Your task to perform on an android device: Search for razer naga on amazon.com, select the first entry, add it to the cart, then select checkout. Image 0: 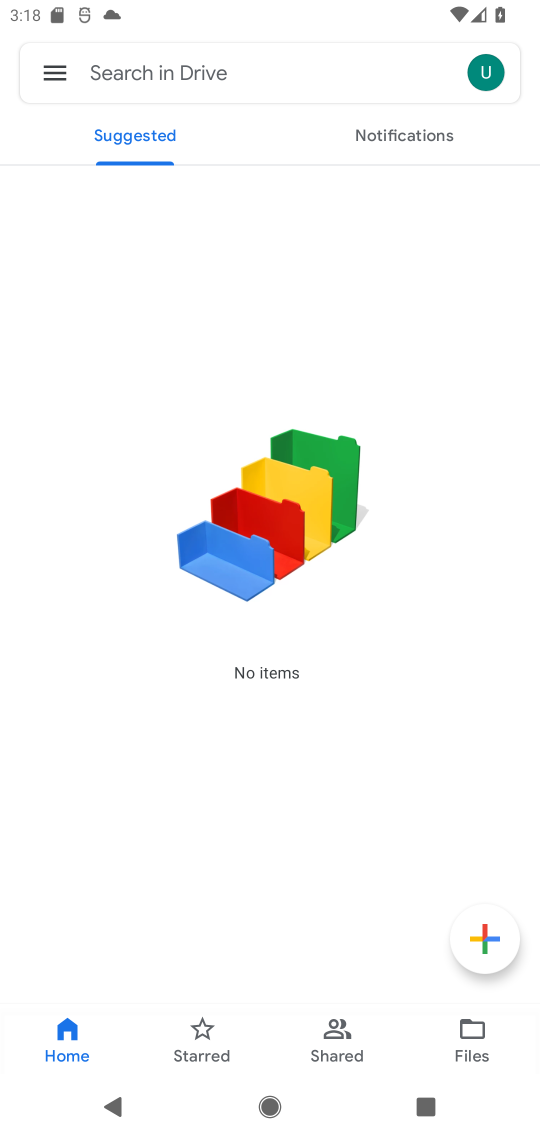
Step 0: press home button
Your task to perform on an android device: Search for razer naga on amazon.com, select the first entry, add it to the cart, then select checkout. Image 1: 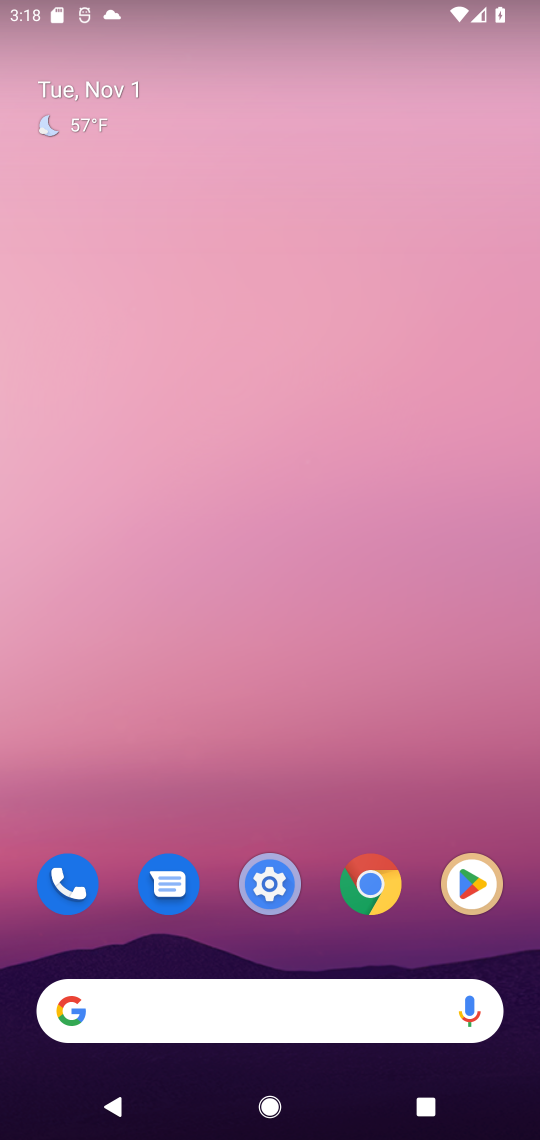
Step 1: click (105, 1011)
Your task to perform on an android device: Search for razer naga on amazon.com, select the first entry, add it to the cart, then select checkout. Image 2: 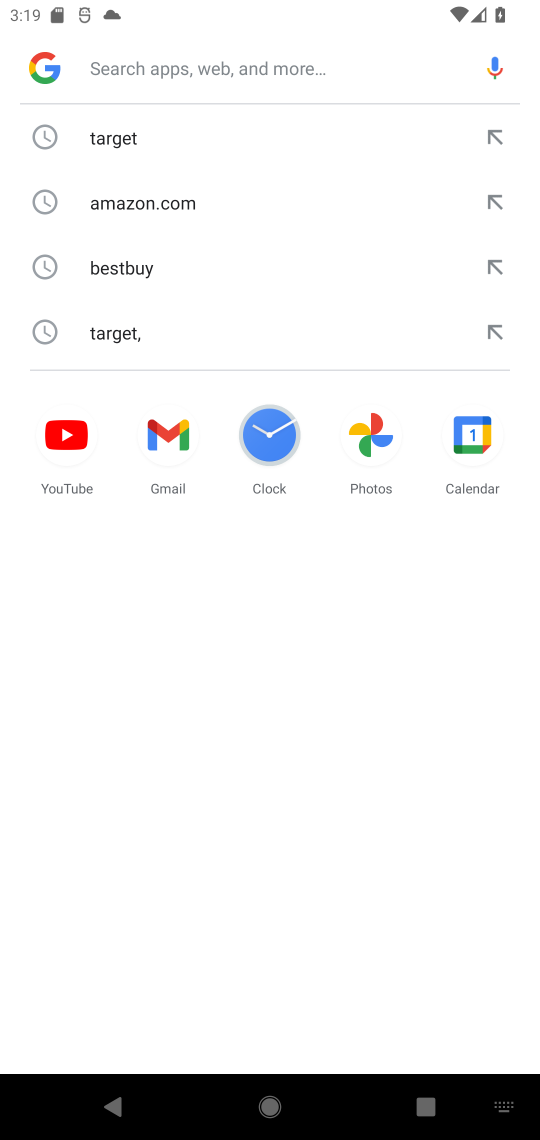
Step 2: type " amazon.com"
Your task to perform on an android device: Search for razer naga on amazon.com, select the first entry, add it to the cart, then select checkout. Image 3: 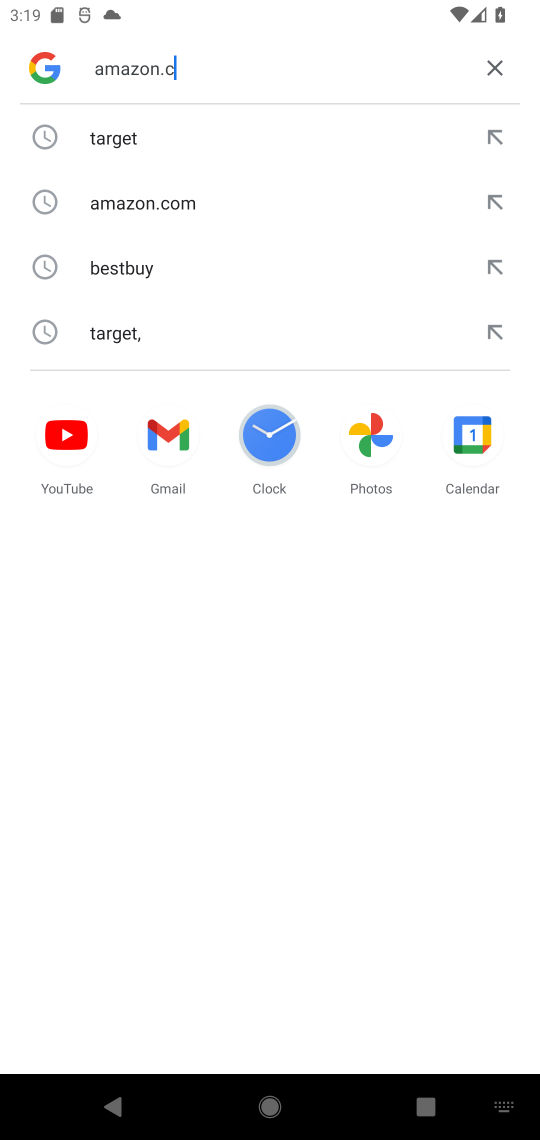
Step 3: press enter
Your task to perform on an android device: Search for razer naga on amazon.com, select the first entry, add it to the cart, then select checkout. Image 4: 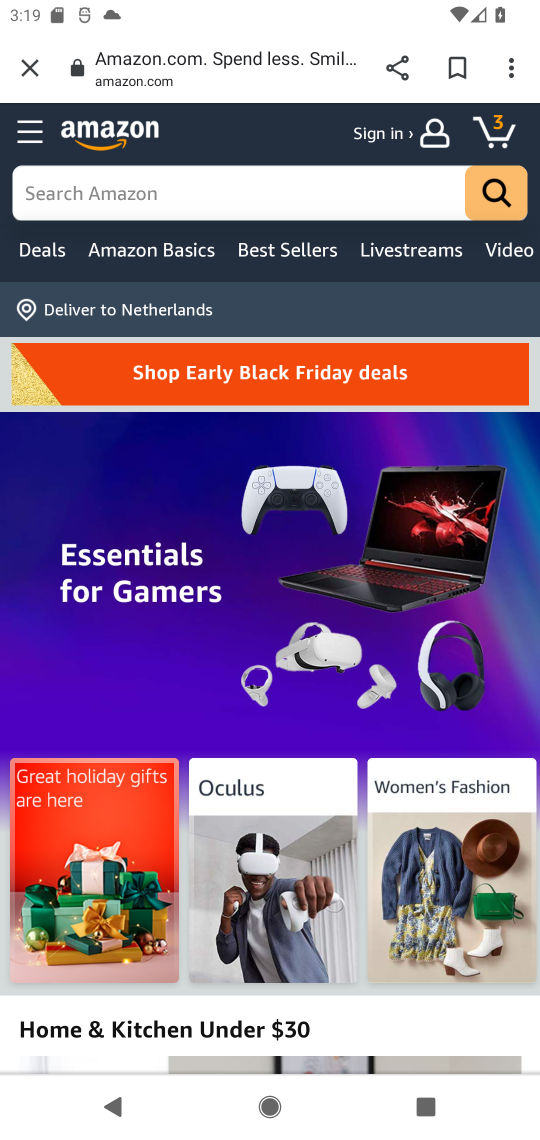
Step 4: click (37, 190)
Your task to perform on an android device: Search for razer naga on amazon.com, select the first entry, add it to the cart, then select checkout. Image 5: 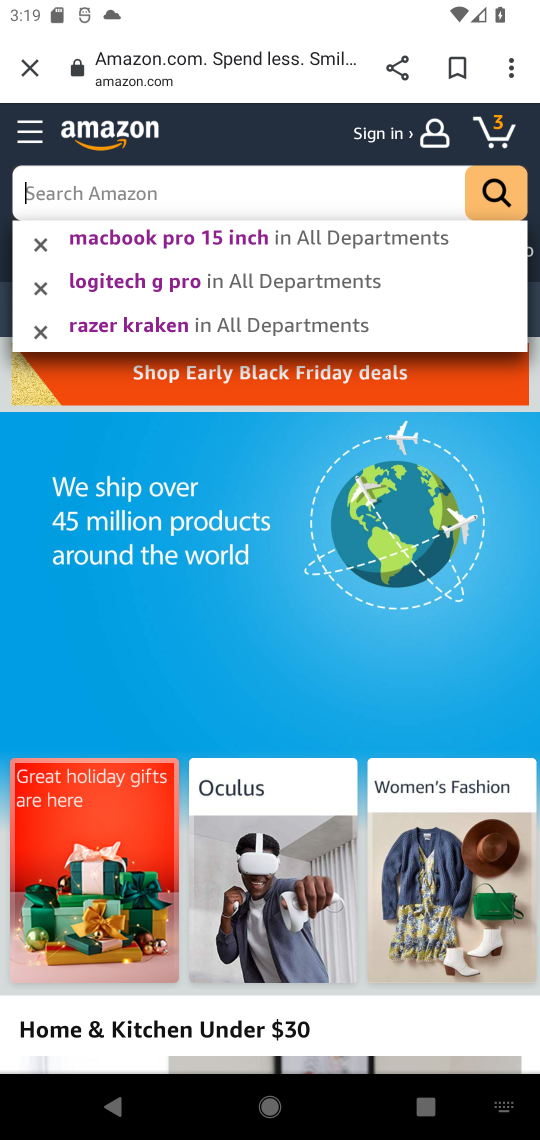
Step 5: type "razer naga"
Your task to perform on an android device: Search for razer naga on amazon.com, select the first entry, add it to the cart, then select checkout. Image 6: 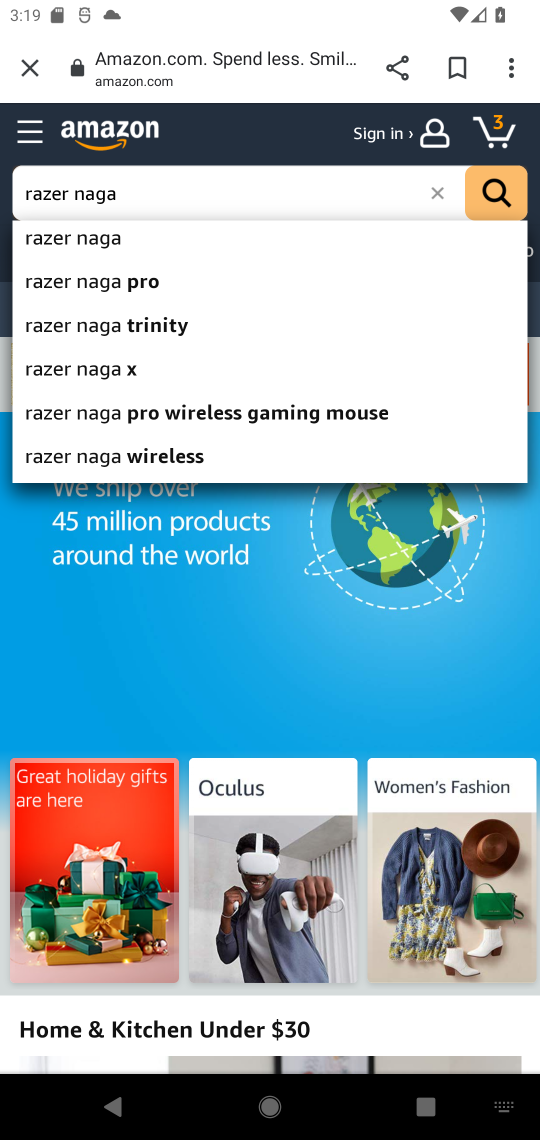
Step 6: click (498, 194)
Your task to perform on an android device: Search for razer naga on amazon.com, select the first entry, add it to the cart, then select checkout. Image 7: 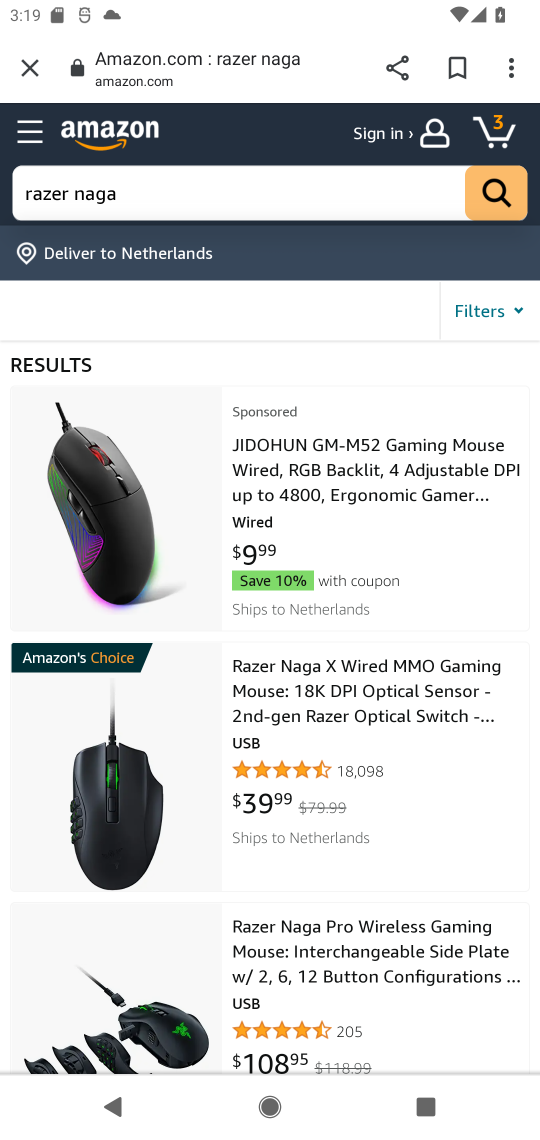
Step 7: click (330, 693)
Your task to perform on an android device: Search for razer naga on amazon.com, select the first entry, add it to the cart, then select checkout. Image 8: 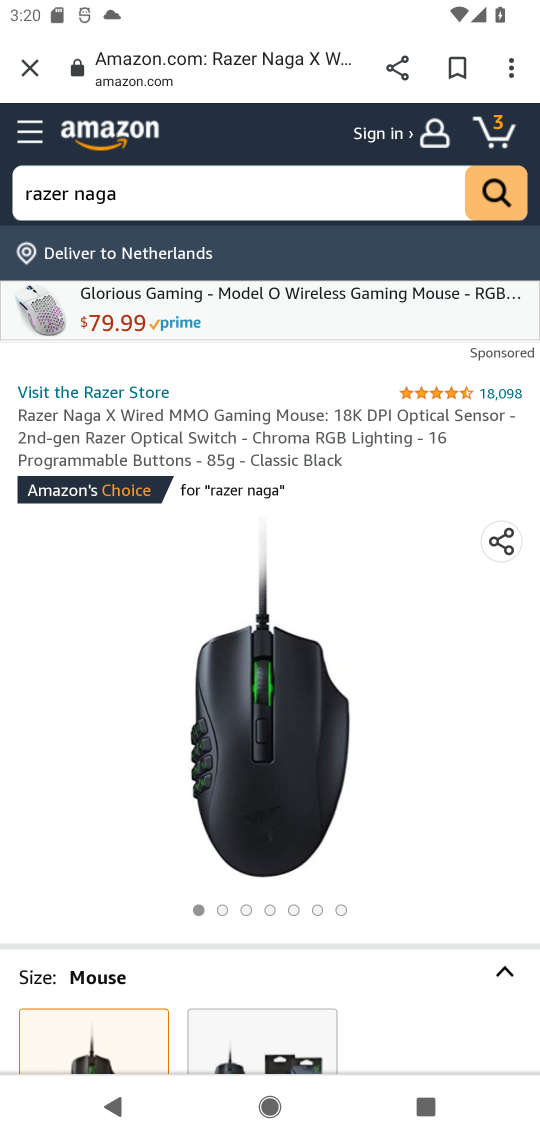
Step 8: drag from (373, 826) to (380, 424)
Your task to perform on an android device: Search for razer naga on amazon.com, select the first entry, add it to the cart, then select checkout. Image 9: 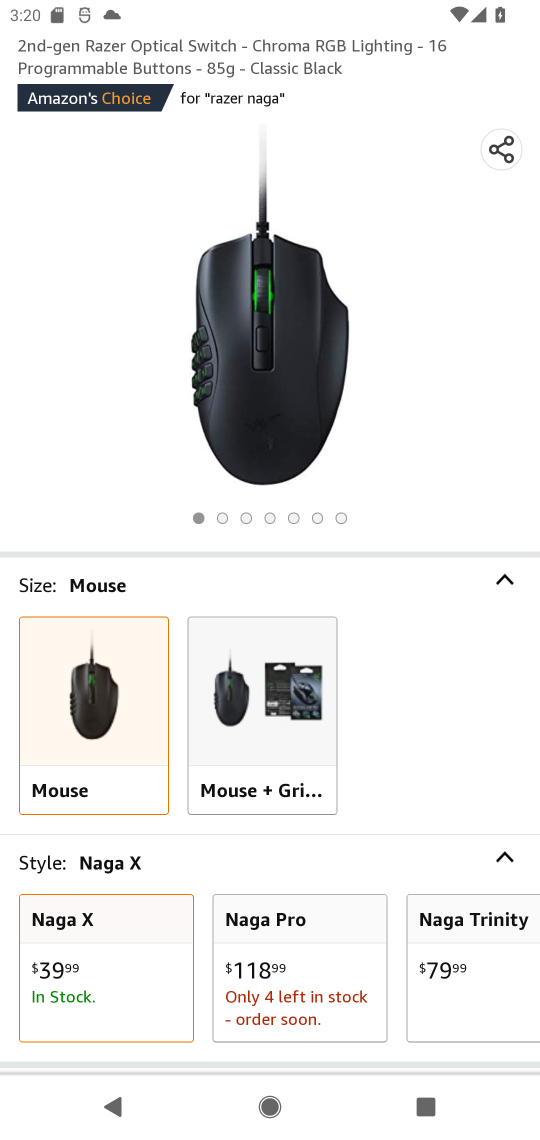
Step 9: drag from (307, 850) to (323, 406)
Your task to perform on an android device: Search for razer naga on amazon.com, select the first entry, add it to the cart, then select checkout. Image 10: 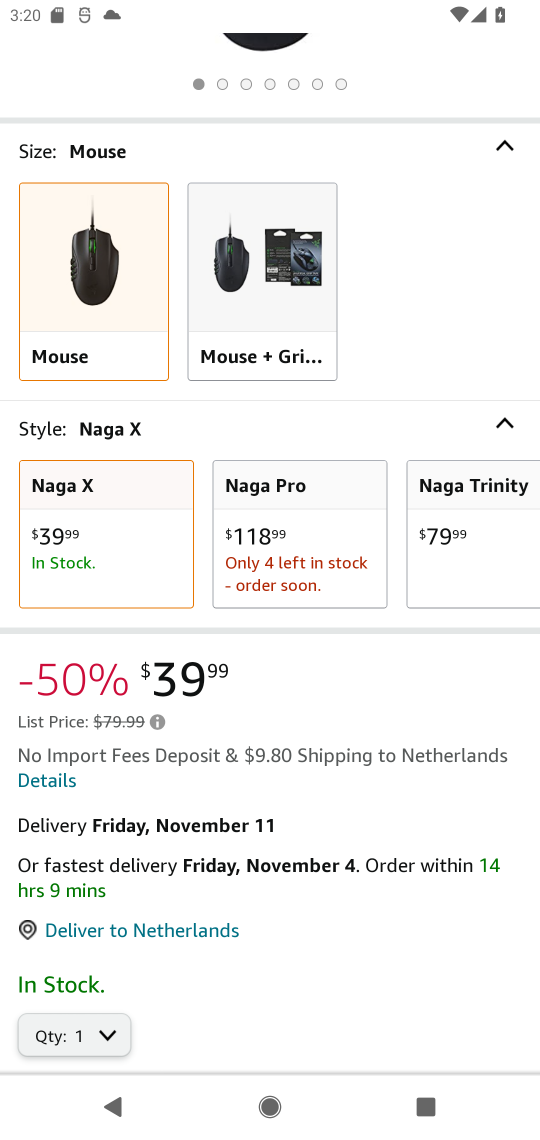
Step 10: drag from (267, 821) to (304, 495)
Your task to perform on an android device: Search for razer naga on amazon.com, select the first entry, add it to the cart, then select checkout. Image 11: 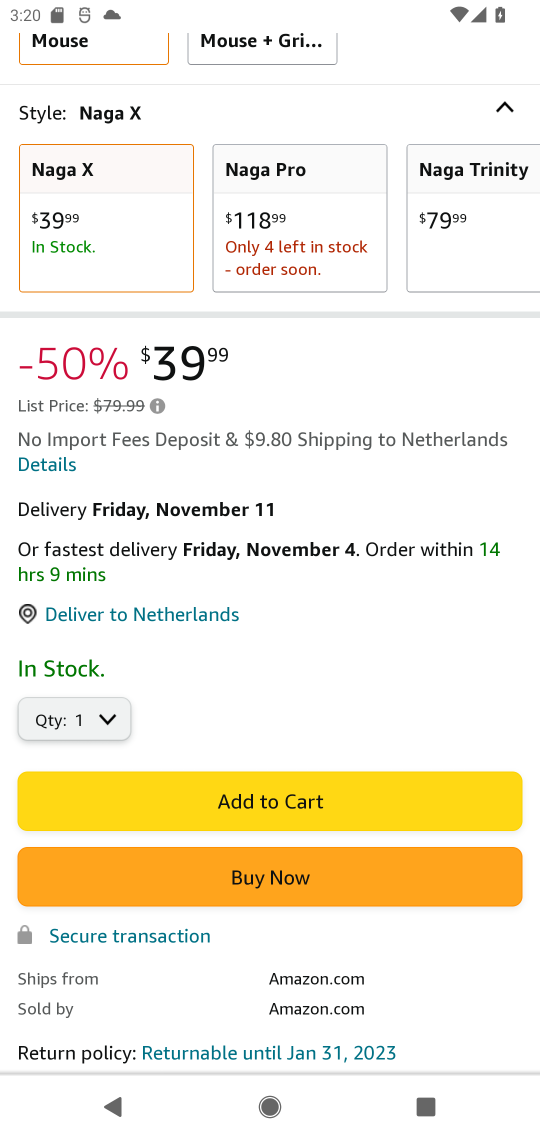
Step 11: click (253, 810)
Your task to perform on an android device: Search for razer naga on amazon.com, select the first entry, add it to the cart, then select checkout. Image 12: 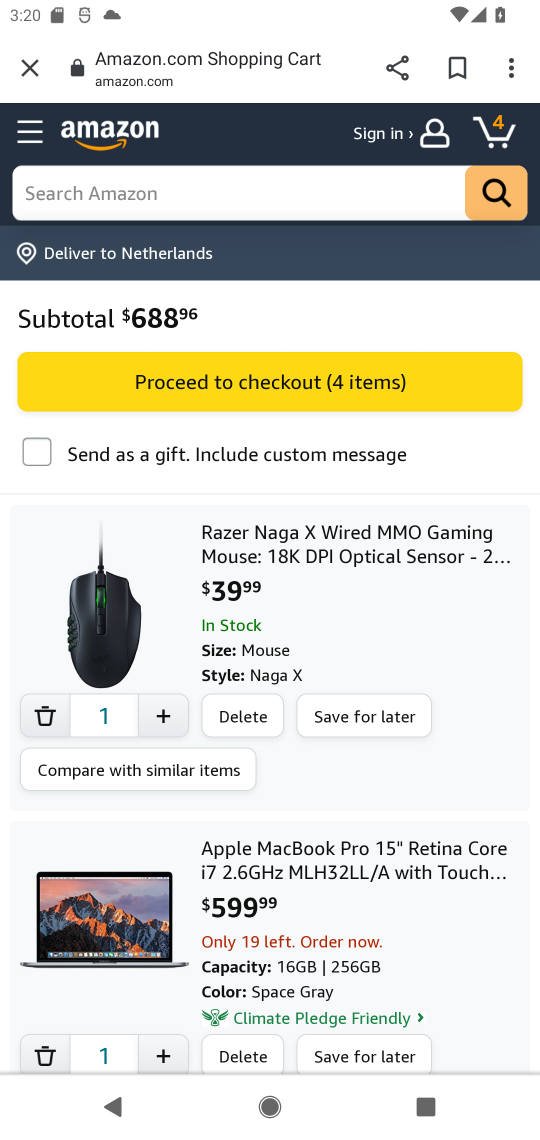
Step 12: click (310, 389)
Your task to perform on an android device: Search for razer naga on amazon.com, select the first entry, add it to the cart, then select checkout. Image 13: 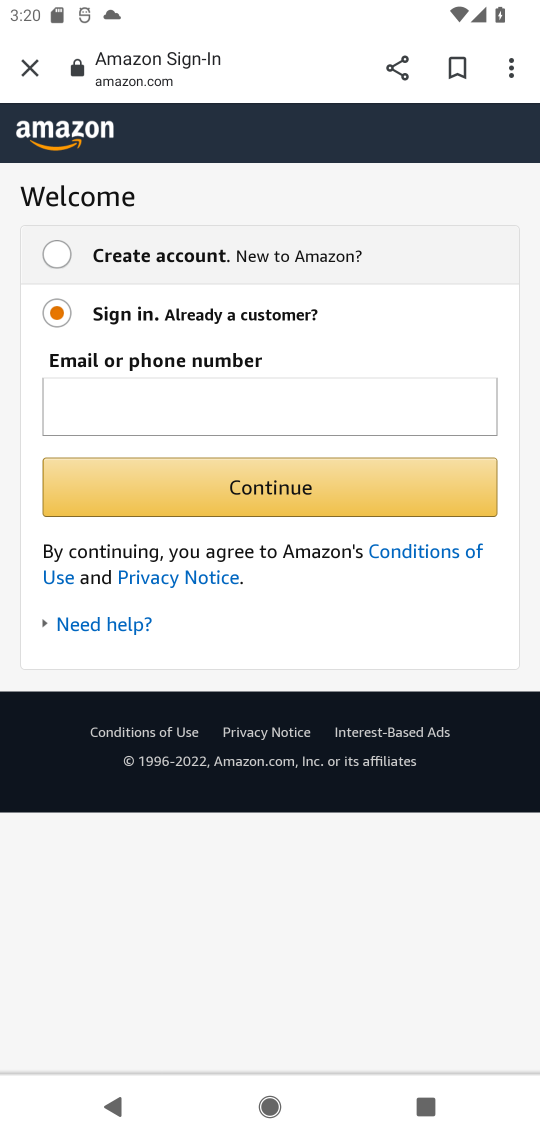
Step 13: task complete